Your task to perform on an android device: Find coffee shops on Maps Image 0: 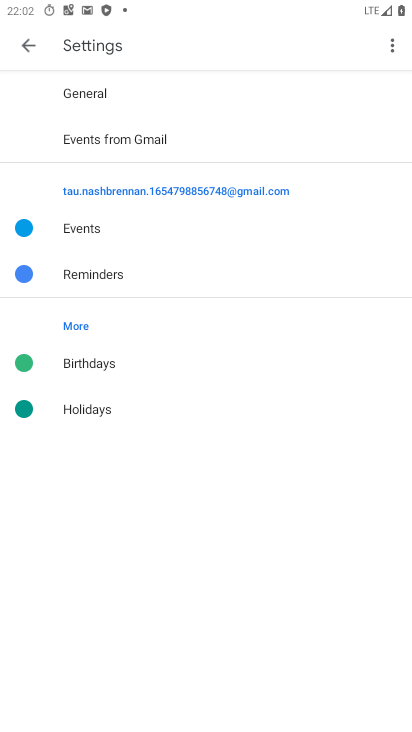
Step 0: press home button
Your task to perform on an android device: Find coffee shops on Maps Image 1: 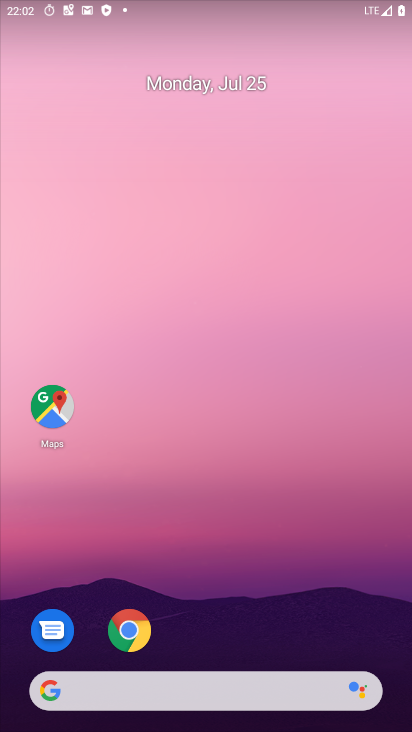
Step 1: drag from (265, 621) to (264, 137)
Your task to perform on an android device: Find coffee shops on Maps Image 2: 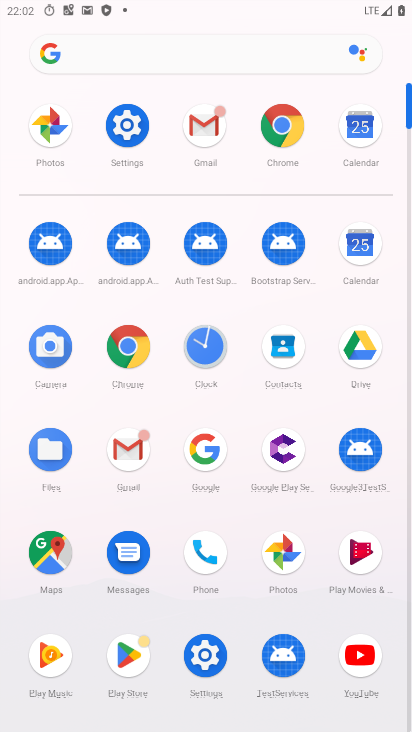
Step 2: click (48, 554)
Your task to perform on an android device: Find coffee shops on Maps Image 3: 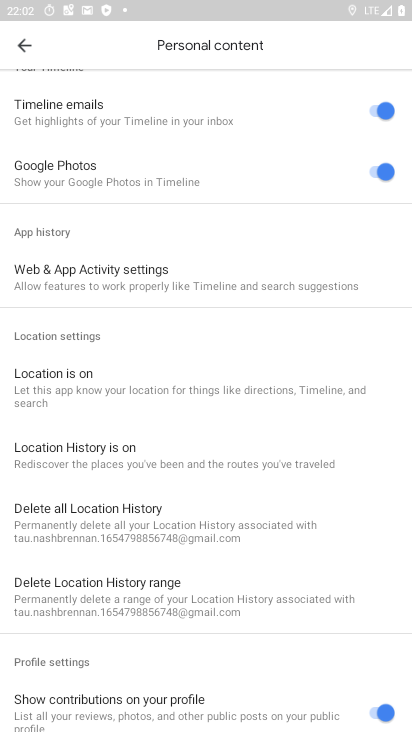
Step 3: press back button
Your task to perform on an android device: Find coffee shops on Maps Image 4: 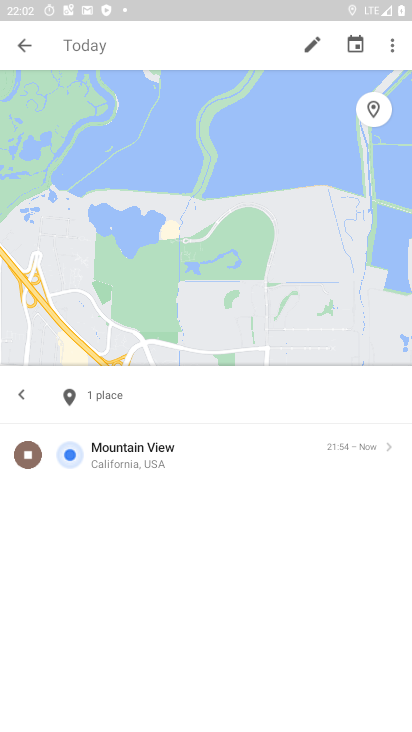
Step 4: press back button
Your task to perform on an android device: Find coffee shops on Maps Image 5: 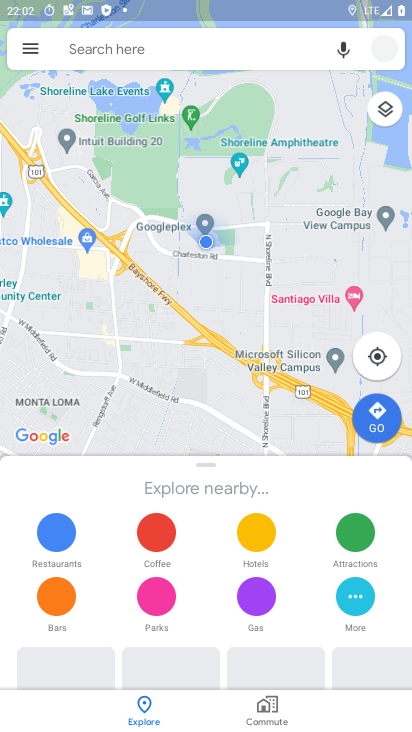
Step 5: click (149, 55)
Your task to perform on an android device: Find coffee shops on Maps Image 6: 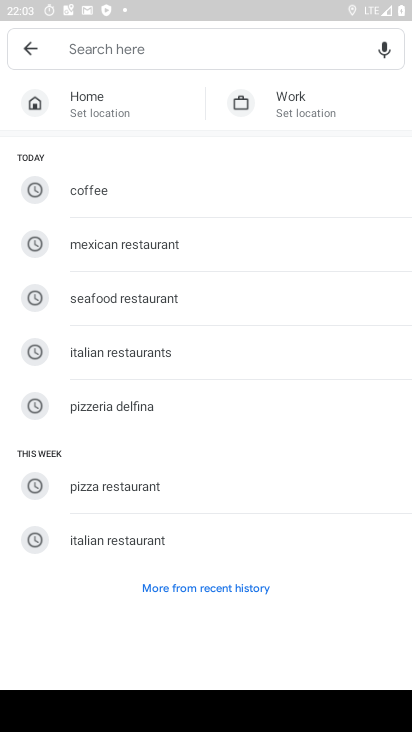
Step 6: type "coffee shops "
Your task to perform on an android device: Find coffee shops on Maps Image 7: 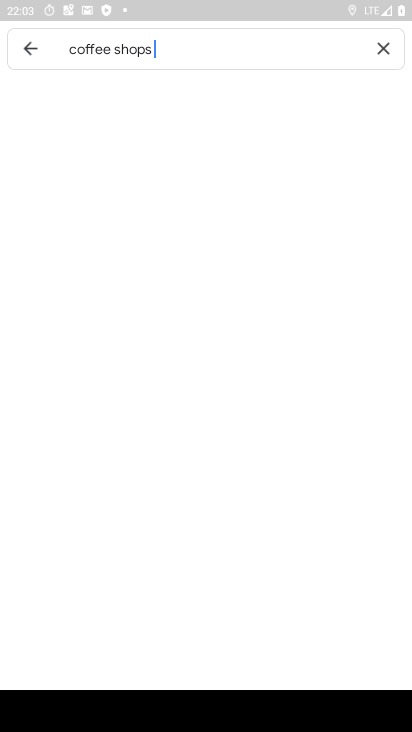
Step 7: press enter
Your task to perform on an android device: Find coffee shops on Maps Image 8: 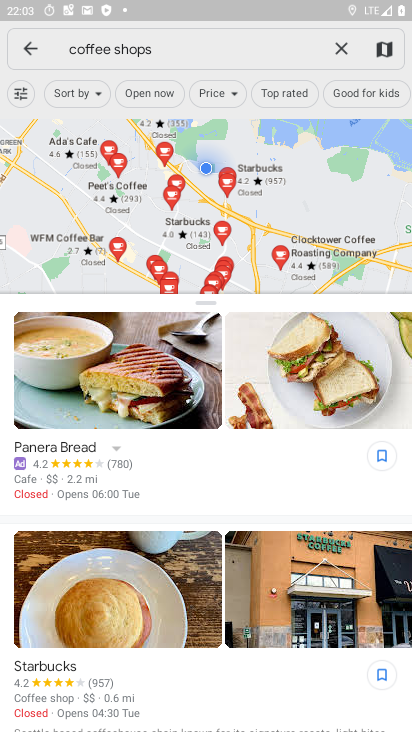
Step 8: task complete